Your task to perform on an android device: toggle sleep mode Image 0: 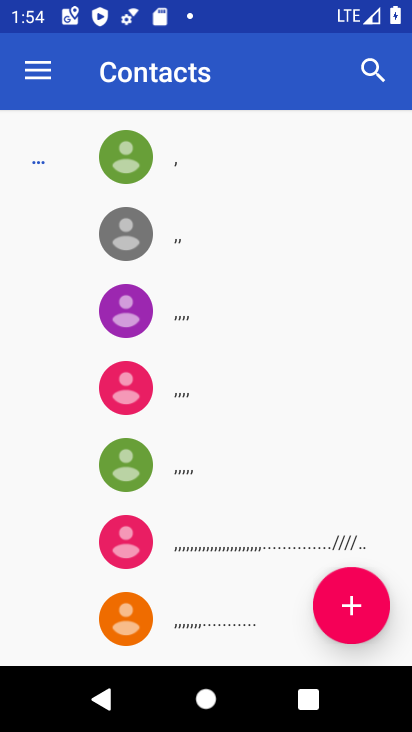
Step 0: press home button
Your task to perform on an android device: toggle sleep mode Image 1: 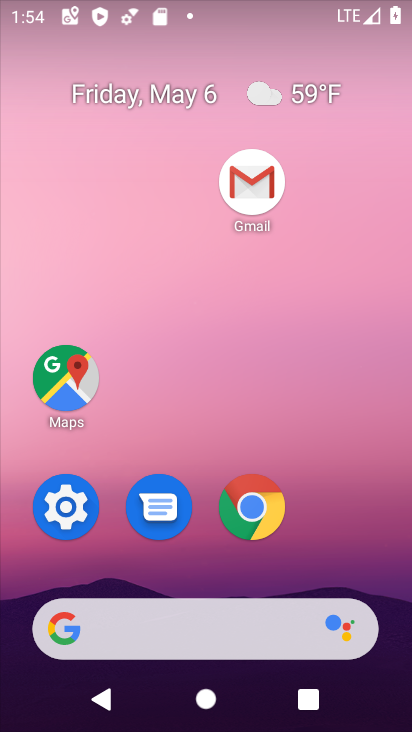
Step 1: click (69, 503)
Your task to perform on an android device: toggle sleep mode Image 2: 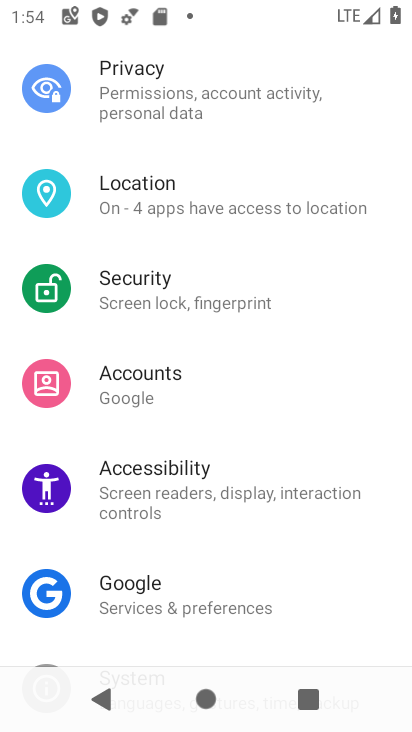
Step 2: drag from (212, 165) to (266, 623)
Your task to perform on an android device: toggle sleep mode Image 3: 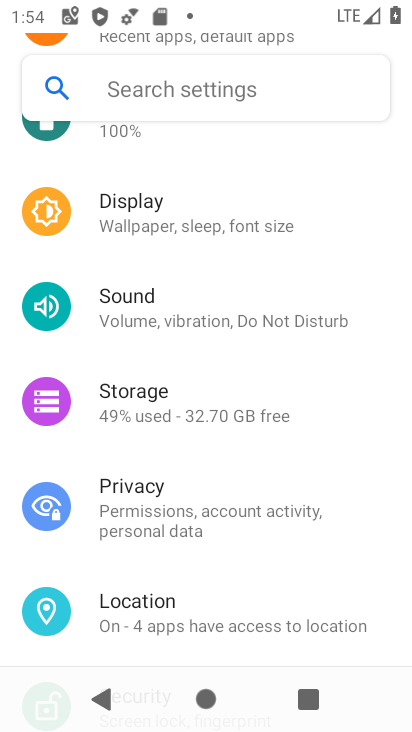
Step 3: drag from (224, 188) to (242, 605)
Your task to perform on an android device: toggle sleep mode Image 4: 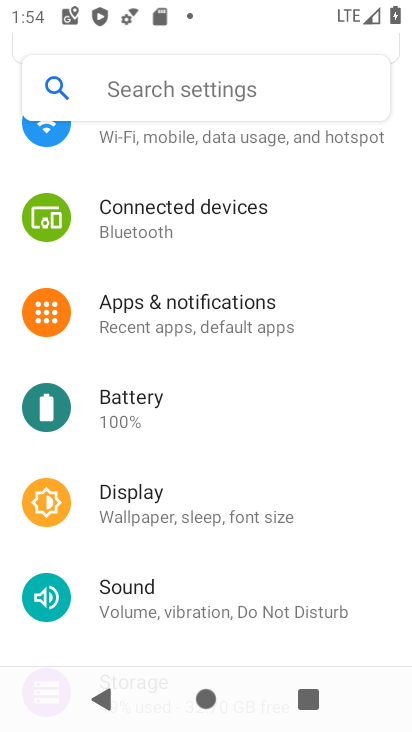
Step 4: drag from (264, 208) to (318, 517)
Your task to perform on an android device: toggle sleep mode Image 5: 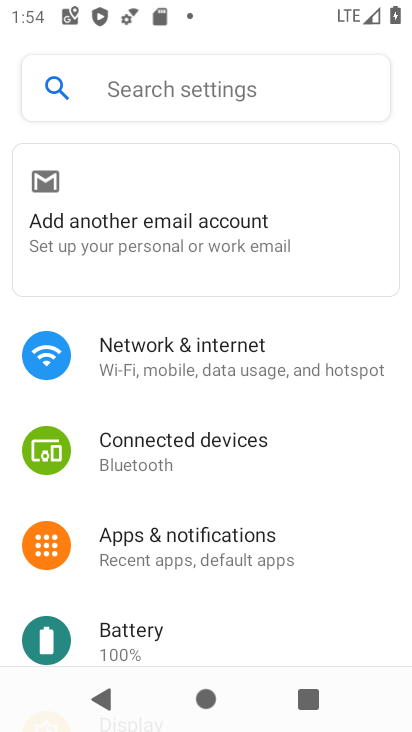
Step 5: drag from (176, 591) to (145, 409)
Your task to perform on an android device: toggle sleep mode Image 6: 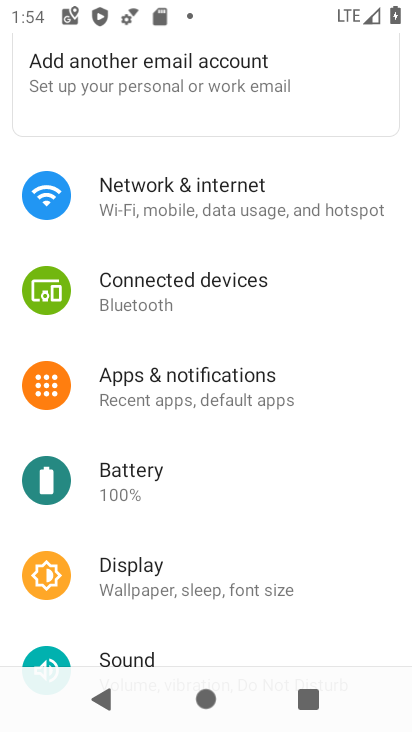
Step 6: click (142, 578)
Your task to perform on an android device: toggle sleep mode Image 7: 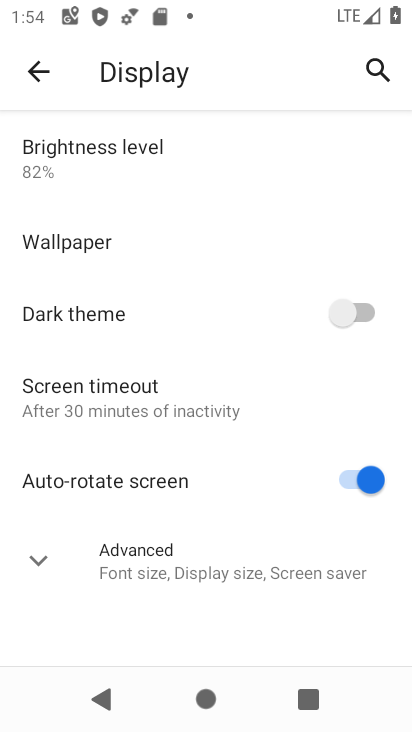
Step 7: task complete